Your task to perform on an android device: Show the shopping cart on target. Search for "macbook pro" on target, select the first entry, and add it to the cart. Image 0: 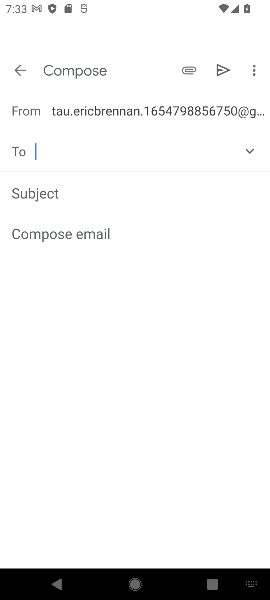
Step 0: press home button
Your task to perform on an android device: Show the shopping cart on target. Search for "macbook pro" on target, select the first entry, and add it to the cart. Image 1: 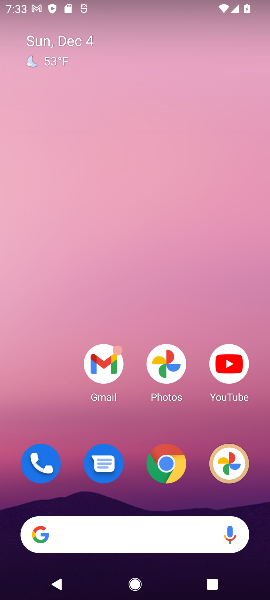
Step 1: click (163, 541)
Your task to perform on an android device: Show the shopping cart on target. Search for "macbook pro" on target, select the first entry, and add it to the cart. Image 2: 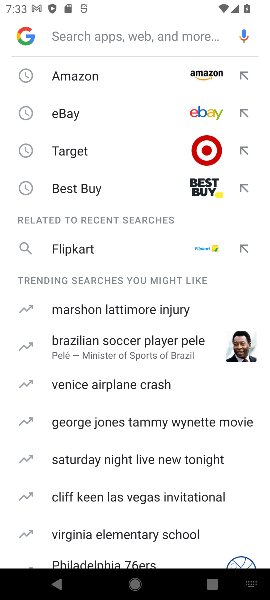
Step 2: type "target"
Your task to perform on an android device: Show the shopping cart on target. Search for "macbook pro" on target, select the first entry, and add it to the cart. Image 3: 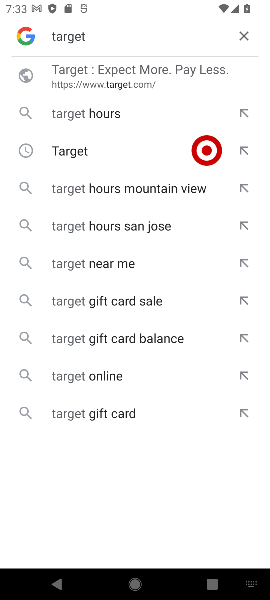
Step 3: click (166, 72)
Your task to perform on an android device: Show the shopping cart on target. Search for "macbook pro" on target, select the first entry, and add it to the cart. Image 4: 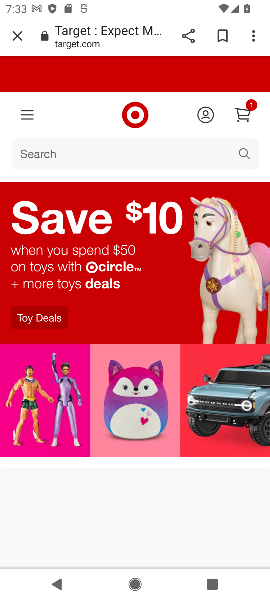
Step 4: click (118, 153)
Your task to perform on an android device: Show the shopping cart on target. Search for "macbook pro" on target, select the first entry, and add it to the cart. Image 5: 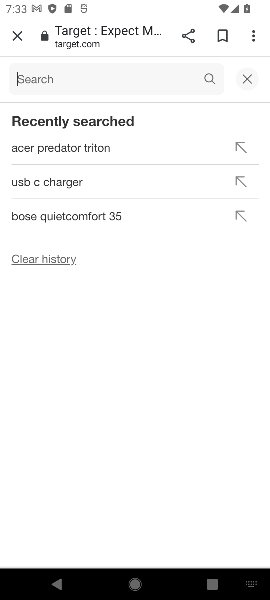
Step 5: type "macbook pro"
Your task to perform on an android device: Show the shopping cart on target. Search for "macbook pro" on target, select the first entry, and add it to the cart. Image 6: 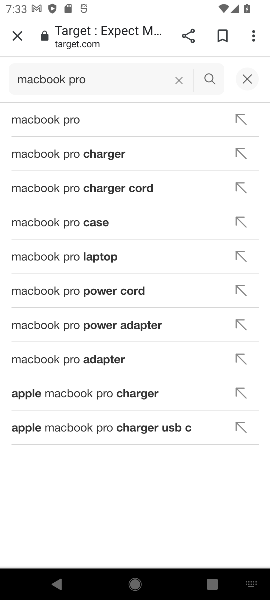
Step 6: click (26, 127)
Your task to perform on an android device: Show the shopping cart on target. Search for "macbook pro" on target, select the first entry, and add it to the cart. Image 7: 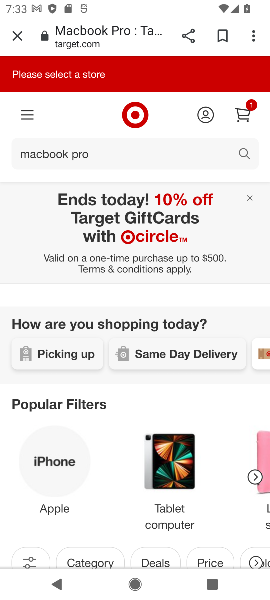
Step 7: click (250, 149)
Your task to perform on an android device: Show the shopping cart on target. Search for "macbook pro" on target, select the first entry, and add it to the cart. Image 8: 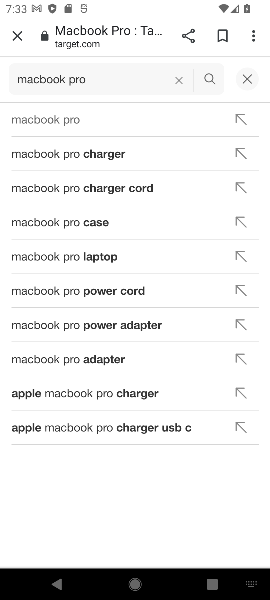
Step 8: click (203, 80)
Your task to perform on an android device: Show the shopping cart on target. Search for "macbook pro" on target, select the first entry, and add it to the cart. Image 9: 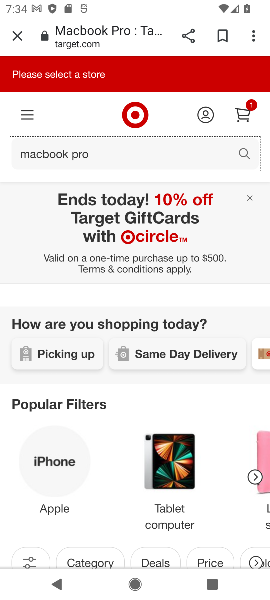
Step 9: task complete